Your task to perform on an android device: see creations saved in the google photos Image 0: 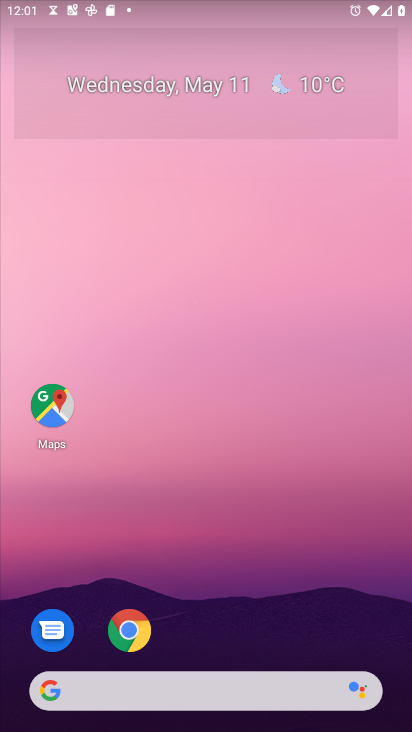
Step 0: drag from (294, 594) to (297, 108)
Your task to perform on an android device: see creations saved in the google photos Image 1: 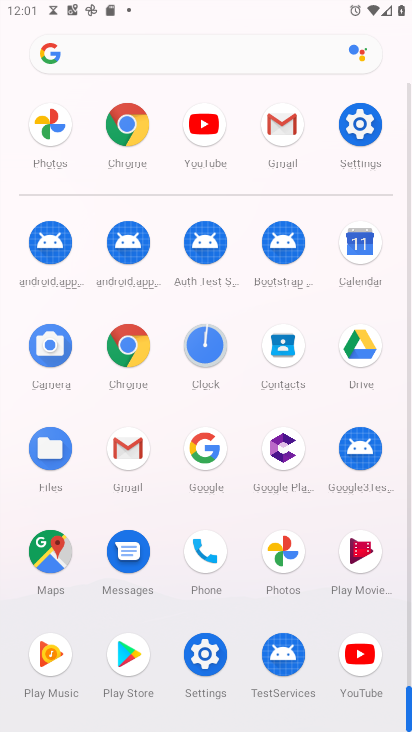
Step 1: drag from (170, 589) to (187, 429)
Your task to perform on an android device: see creations saved in the google photos Image 2: 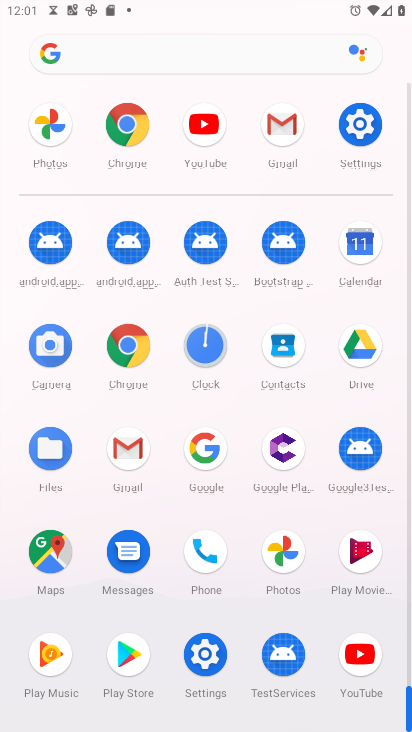
Step 2: click (283, 537)
Your task to perform on an android device: see creations saved in the google photos Image 3: 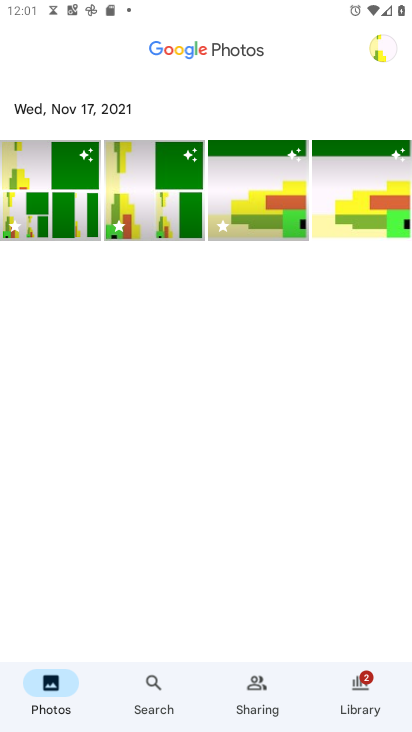
Step 3: click (152, 681)
Your task to perform on an android device: see creations saved in the google photos Image 4: 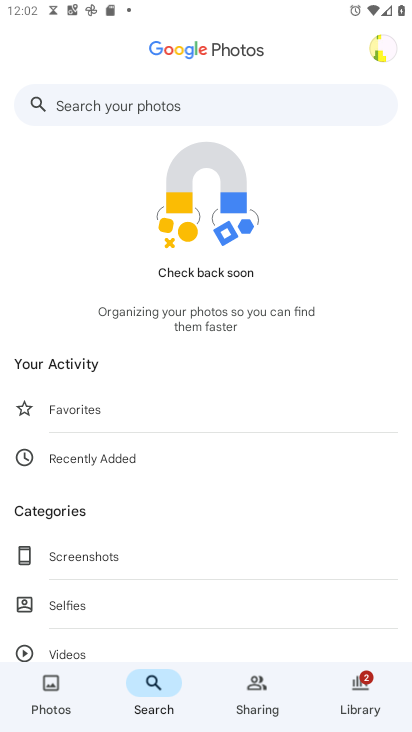
Step 4: drag from (159, 604) to (183, 252)
Your task to perform on an android device: see creations saved in the google photos Image 5: 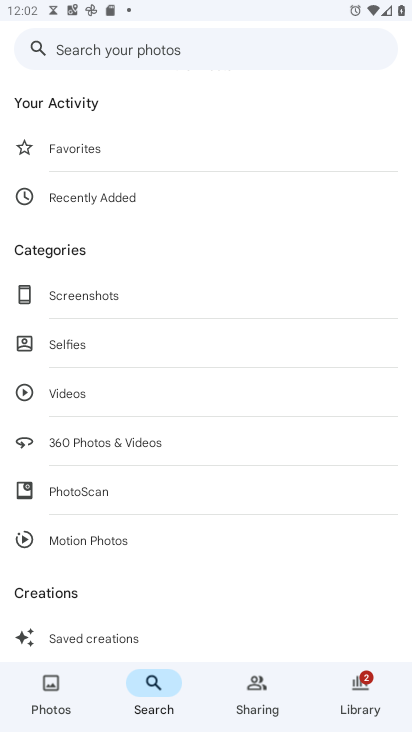
Step 5: click (137, 637)
Your task to perform on an android device: see creations saved in the google photos Image 6: 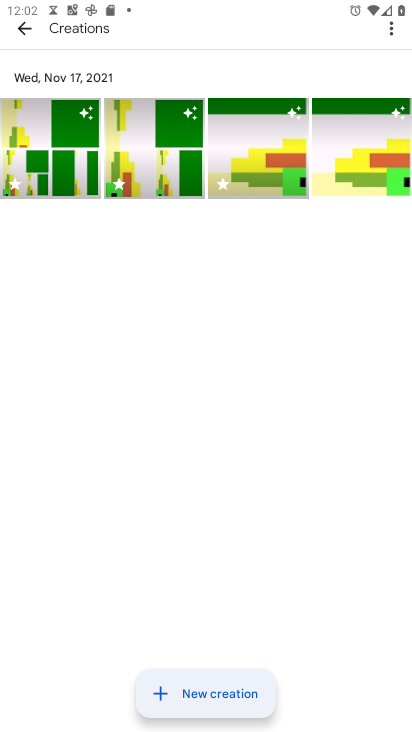
Step 6: task complete